Your task to perform on an android device: turn on priority inbox in the gmail app Image 0: 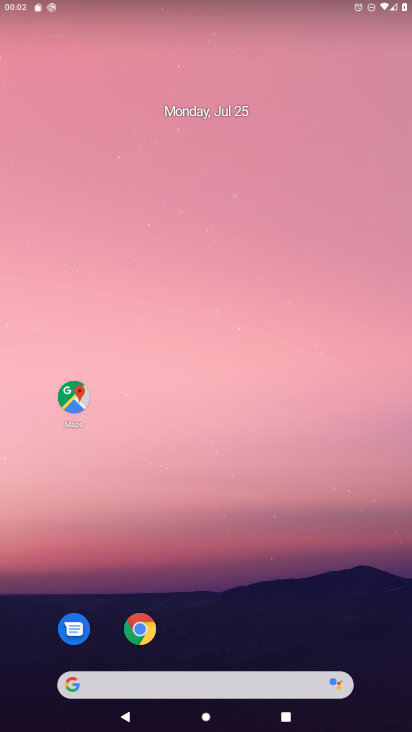
Step 0: drag from (178, 647) to (199, 77)
Your task to perform on an android device: turn on priority inbox in the gmail app Image 1: 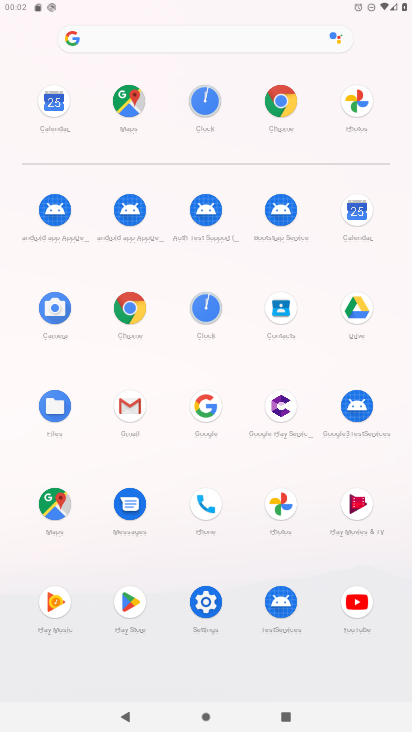
Step 1: click (130, 399)
Your task to perform on an android device: turn on priority inbox in the gmail app Image 2: 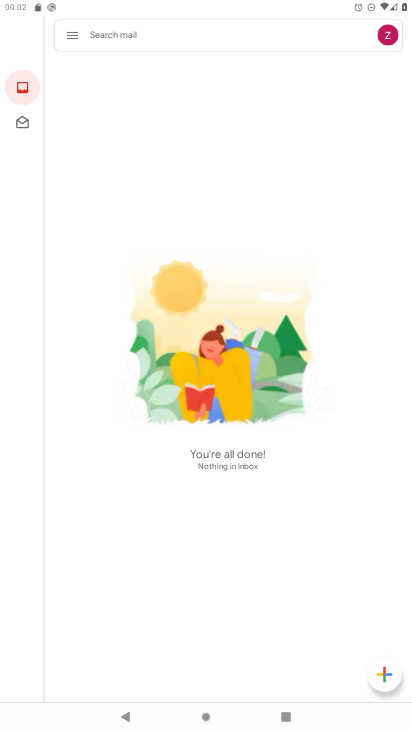
Step 2: click (66, 33)
Your task to perform on an android device: turn on priority inbox in the gmail app Image 3: 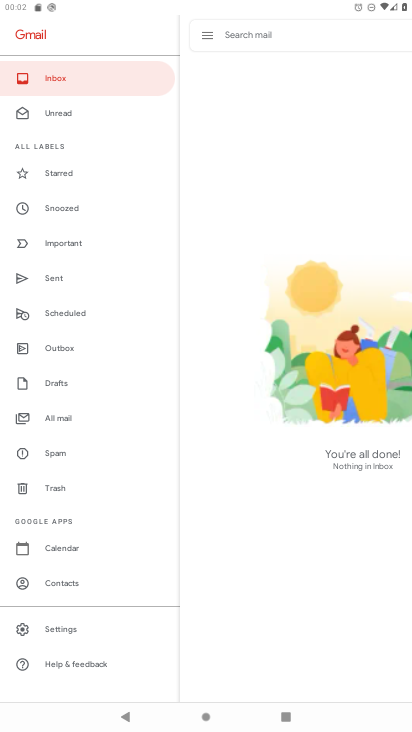
Step 3: click (70, 632)
Your task to perform on an android device: turn on priority inbox in the gmail app Image 4: 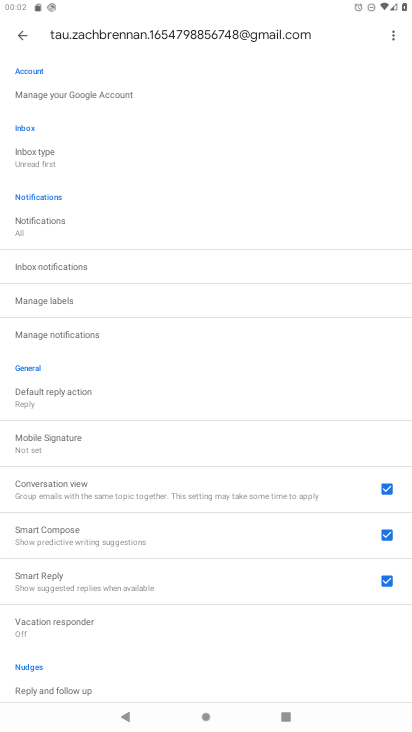
Step 4: click (52, 150)
Your task to perform on an android device: turn on priority inbox in the gmail app Image 5: 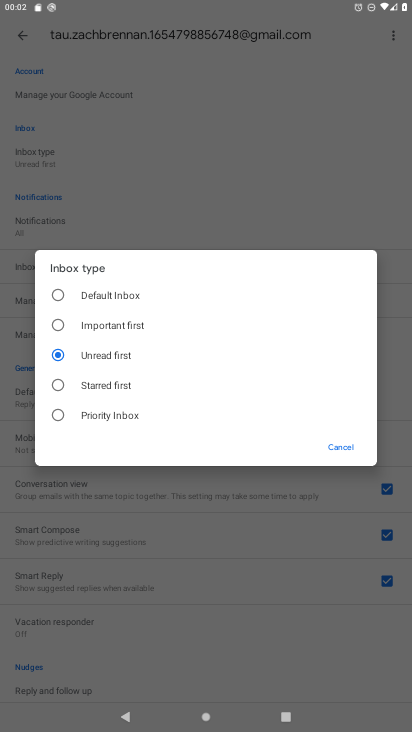
Step 5: click (70, 413)
Your task to perform on an android device: turn on priority inbox in the gmail app Image 6: 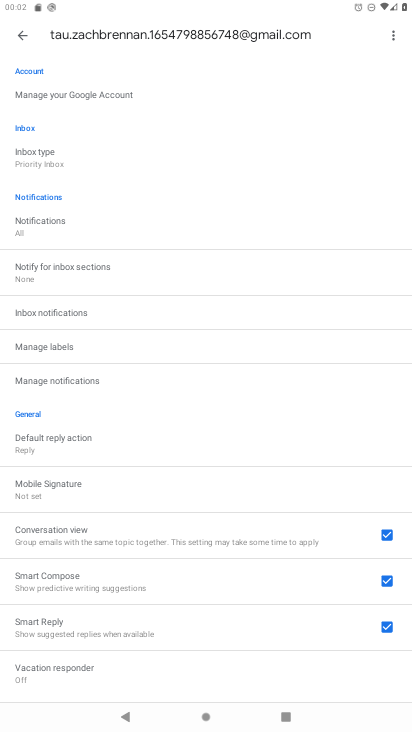
Step 6: task complete